Your task to perform on an android device: set the timer Image 0: 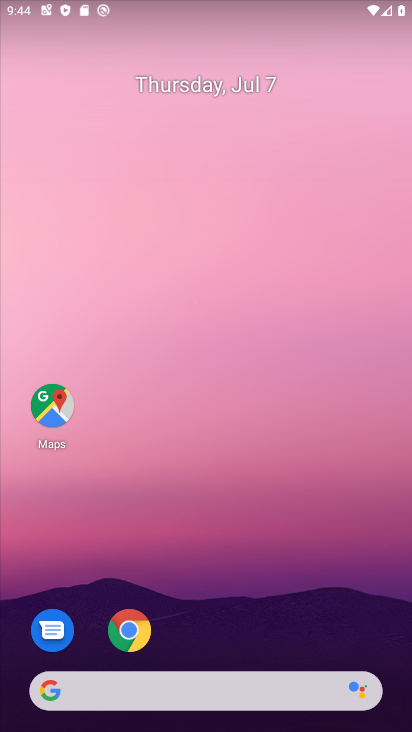
Step 0: drag from (224, 623) to (249, 251)
Your task to perform on an android device: set the timer Image 1: 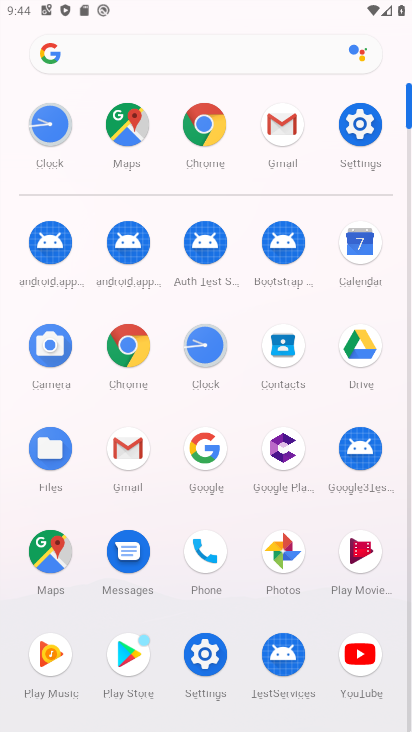
Step 1: click (202, 355)
Your task to perform on an android device: set the timer Image 2: 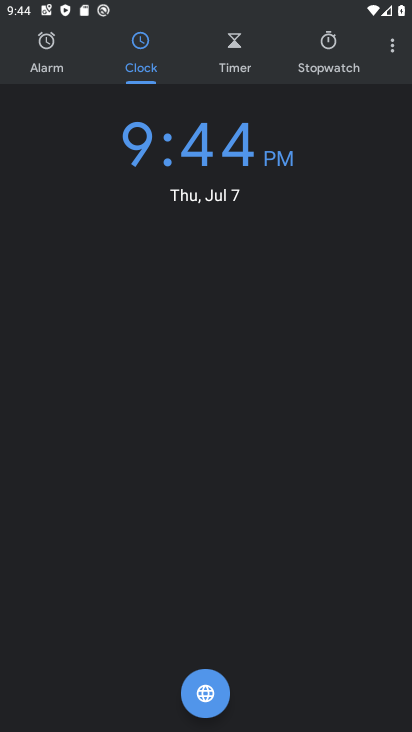
Step 2: click (233, 58)
Your task to perform on an android device: set the timer Image 3: 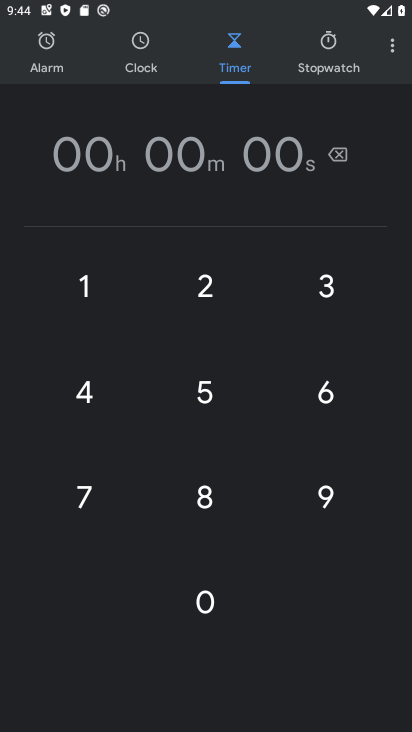
Step 3: click (213, 595)
Your task to perform on an android device: set the timer Image 4: 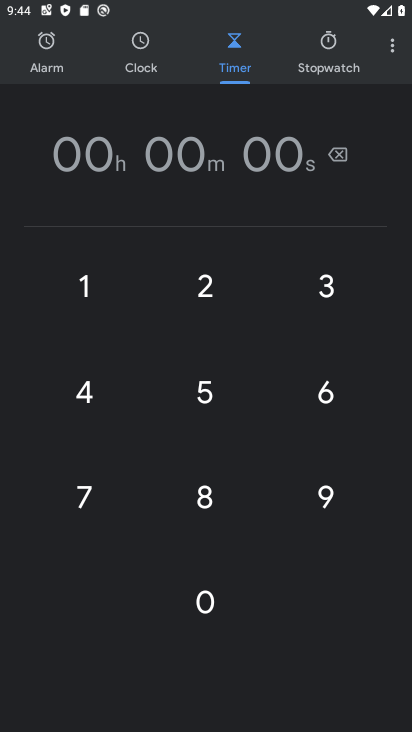
Step 4: click (88, 273)
Your task to perform on an android device: set the timer Image 5: 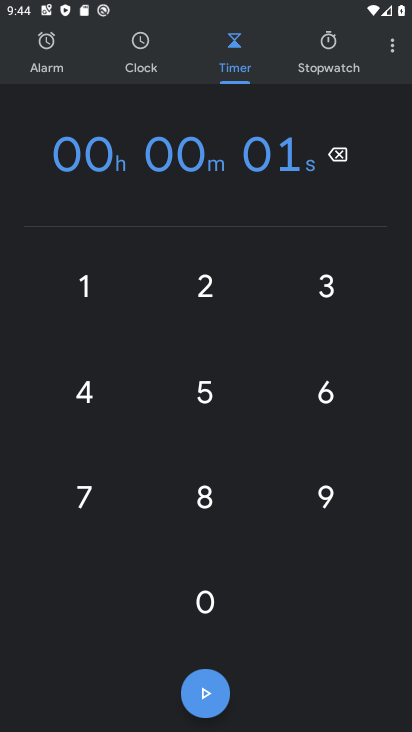
Step 5: click (209, 602)
Your task to perform on an android device: set the timer Image 6: 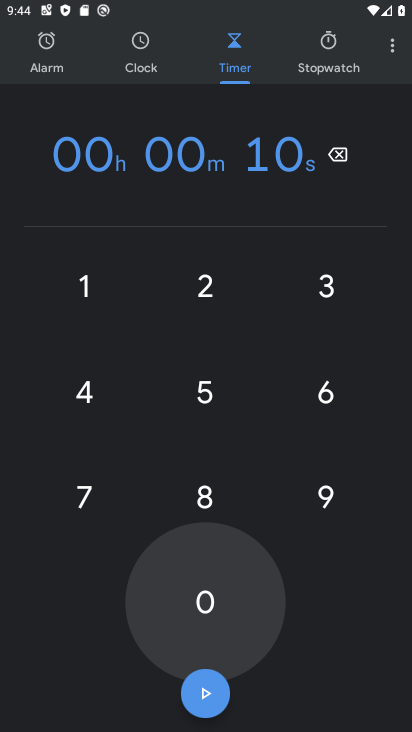
Step 6: click (211, 500)
Your task to perform on an android device: set the timer Image 7: 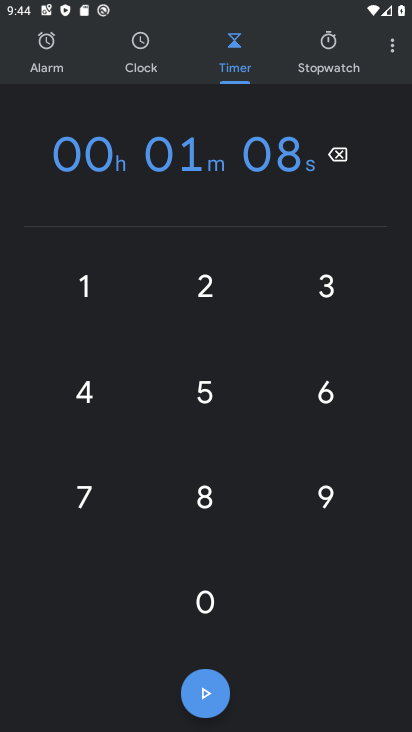
Step 7: click (205, 607)
Your task to perform on an android device: set the timer Image 8: 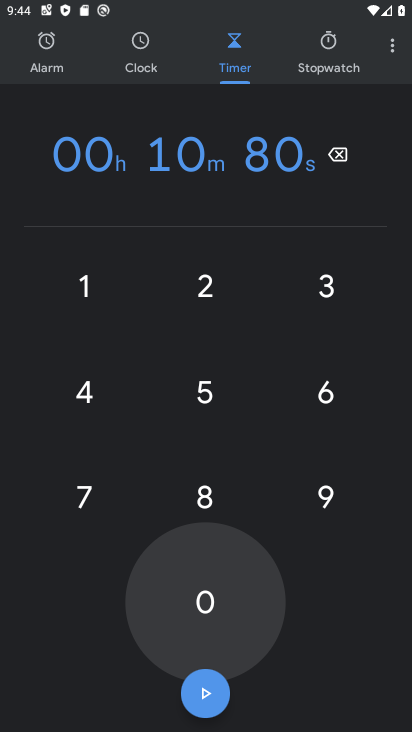
Step 8: click (217, 497)
Your task to perform on an android device: set the timer Image 9: 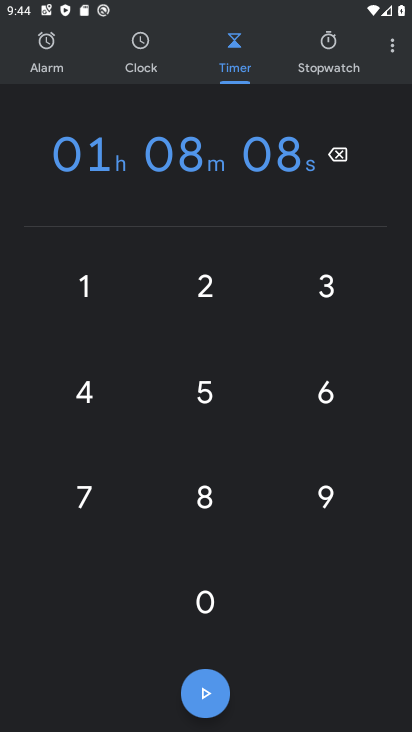
Step 9: click (187, 686)
Your task to perform on an android device: set the timer Image 10: 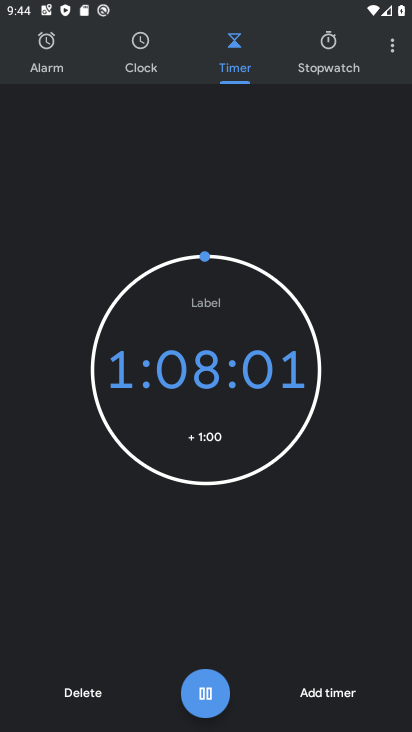
Step 10: task complete